Your task to perform on an android device: install app "Cash App" Image 0: 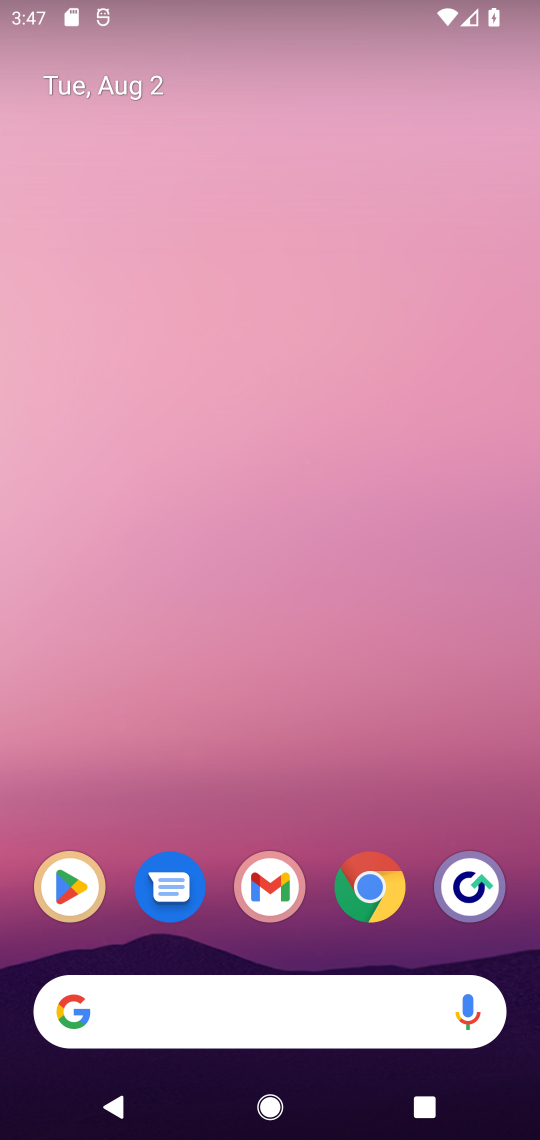
Step 0: click (80, 906)
Your task to perform on an android device: install app "Cash App" Image 1: 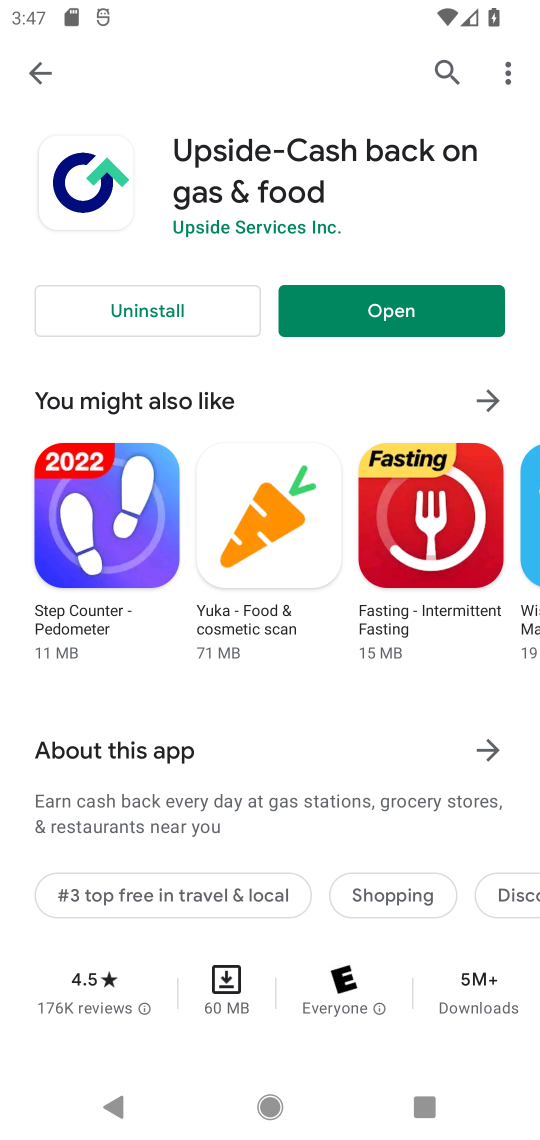
Step 1: click (38, 65)
Your task to perform on an android device: install app "Cash App" Image 2: 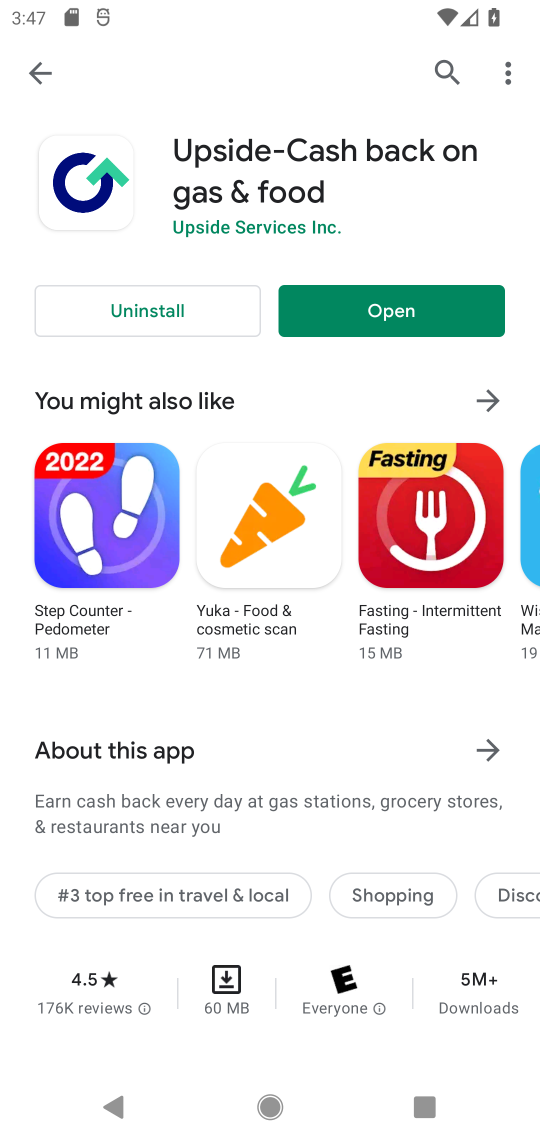
Step 2: click (42, 88)
Your task to perform on an android device: install app "Cash App" Image 3: 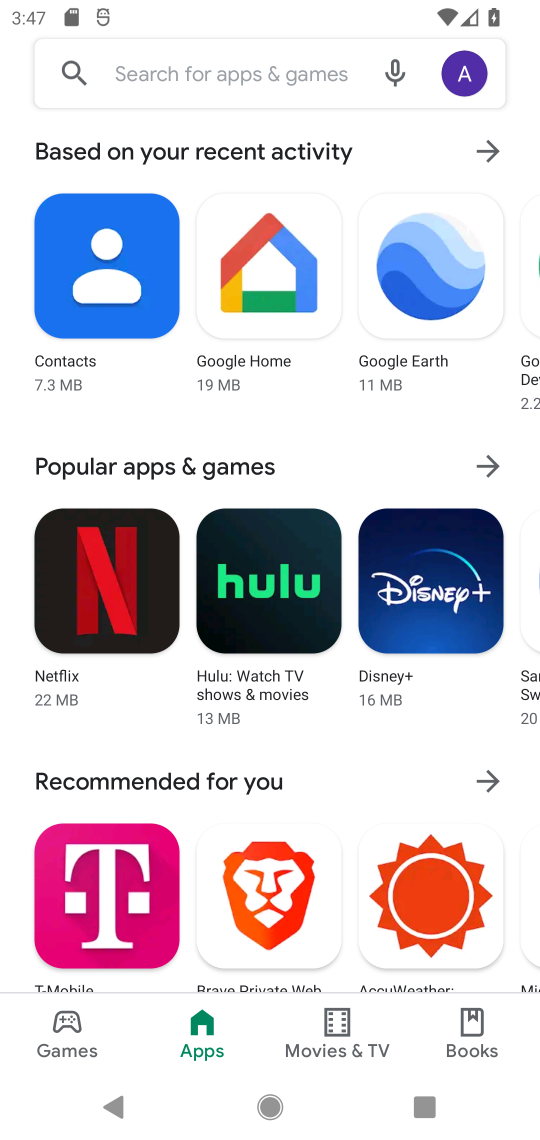
Step 3: click (189, 73)
Your task to perform on an android device: install app "Cash App" Image 4: 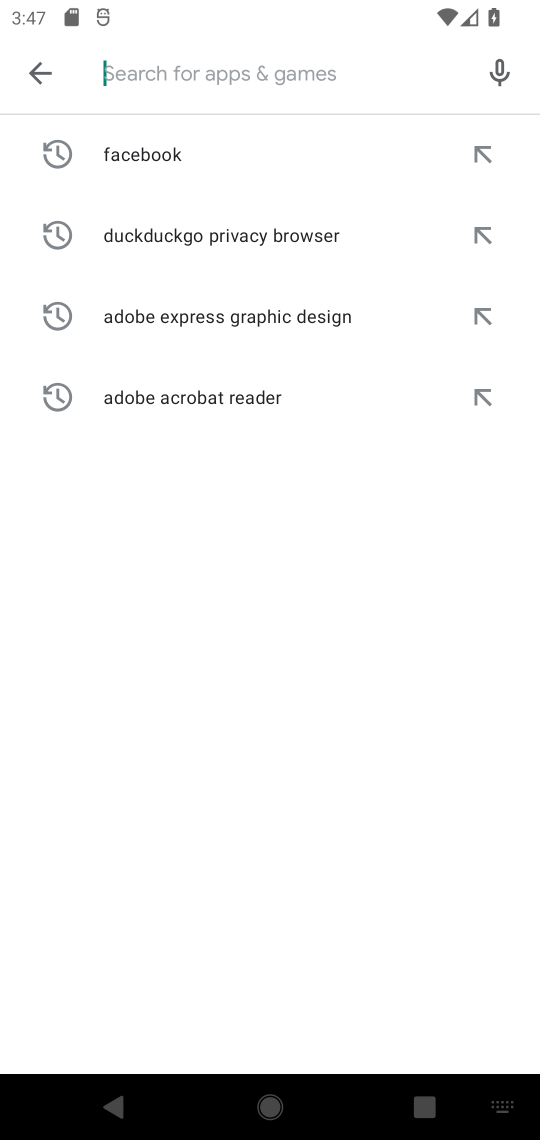
Step 4: type "Cash App"
Your task to perform on an android device: install app "Cash App" Image 5: 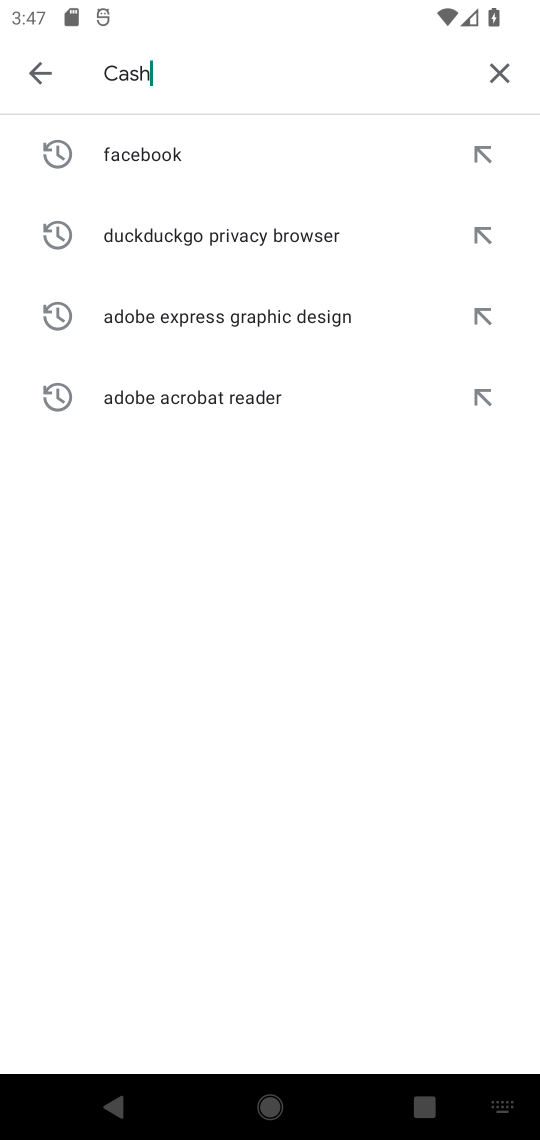
Step 5: type ""
Your task to perform on an android device: install app "Cash App" Image 6: 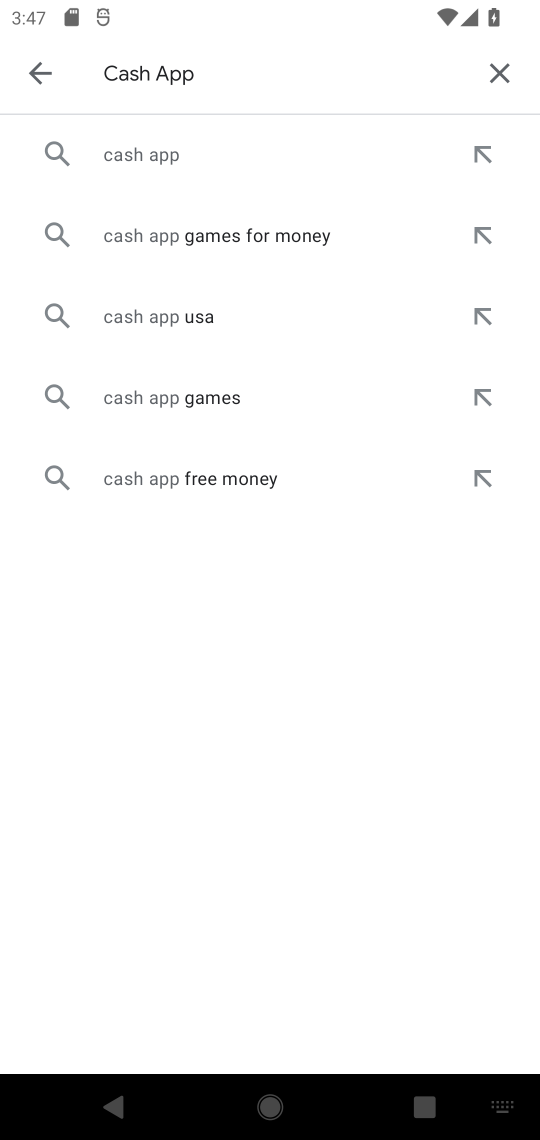
Step 6: click (130, 169)
Your task to perform on an android device: install app "Cash App" Image 7: 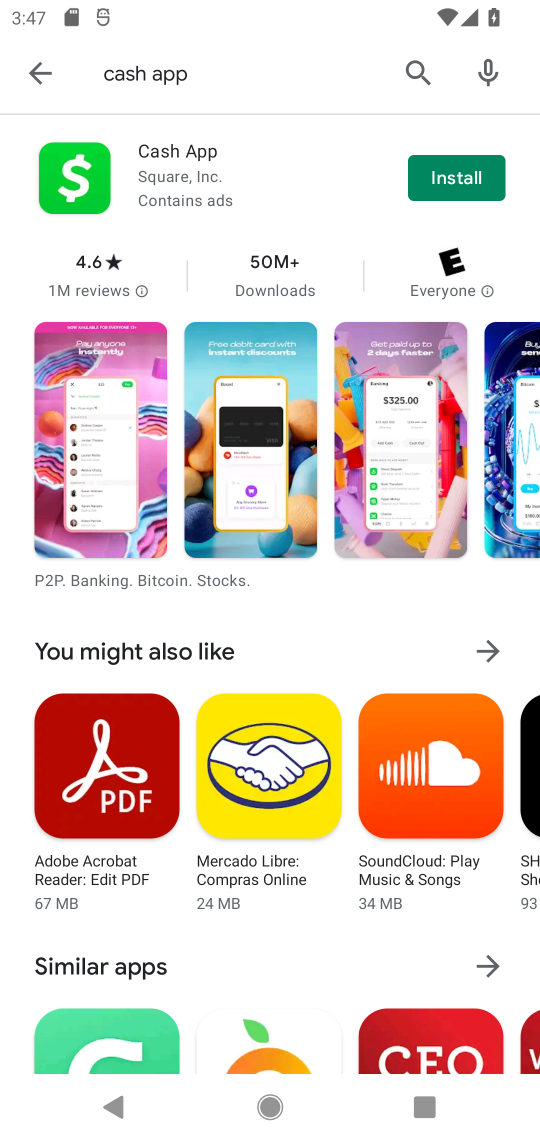
Step 7: click (473, 180)
Your task to perform on an android device: install app "Cash App" Image 8: 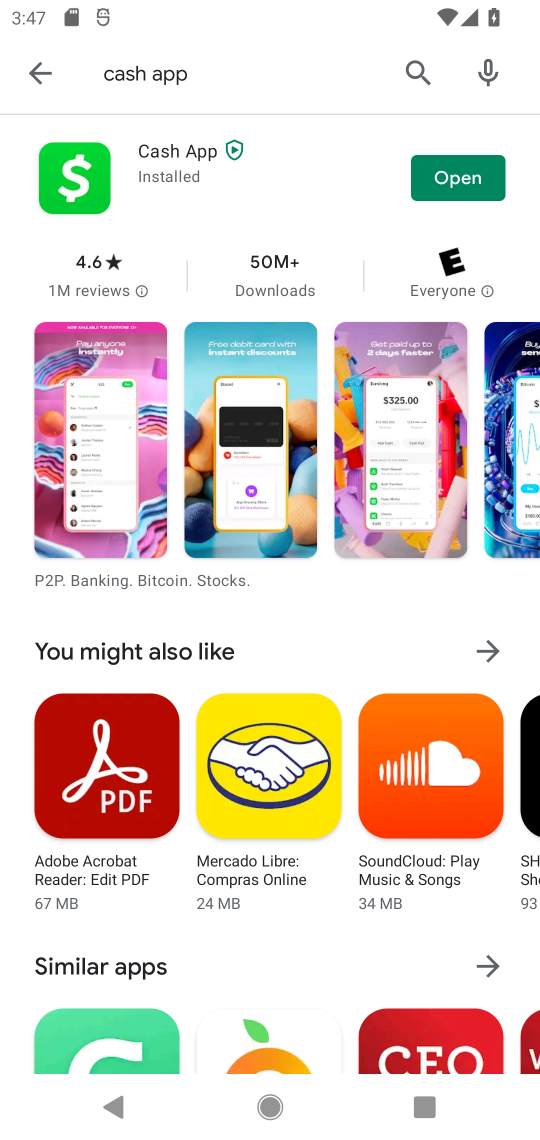
Step 8: task complete